Your task to perform on an android device: check android version Image 0: 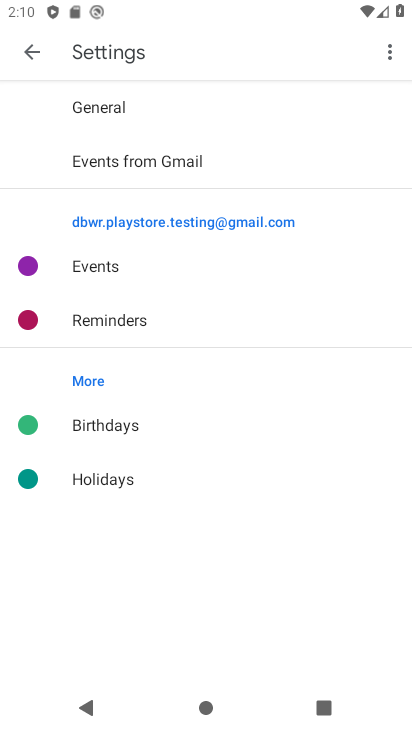
Step 0: press home button
Your task to perform on an android device: check android version Image 1: 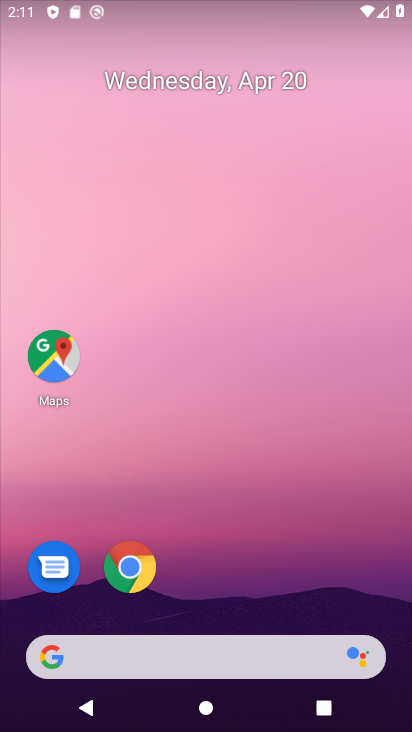
Step 1: drag from (175, 644) to (195, 309)
Your task to perform on an android device: check android version Image 2: 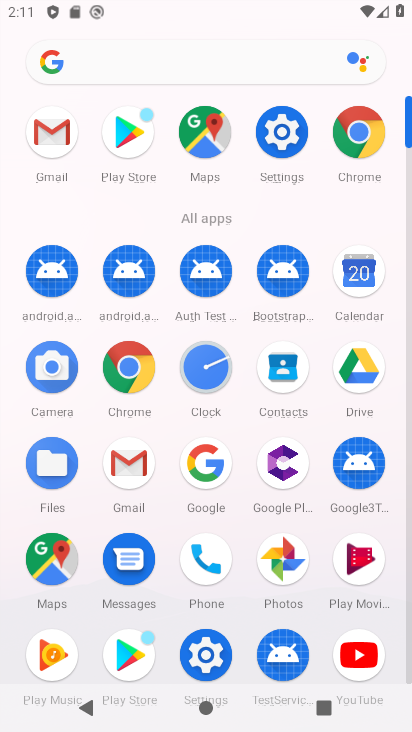
Step 2: click (194, 660)
Your task to perform on an android device: check android version Image 3: 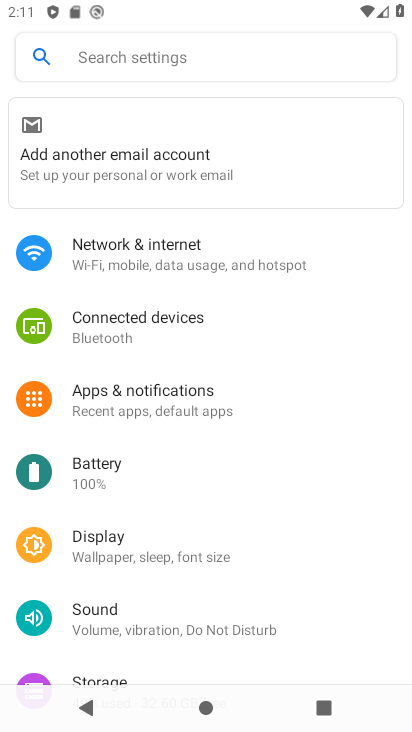
Step 3: drag from (240, 579) to (235, 139)
Your task to perform on an android device: check android version Image 4: 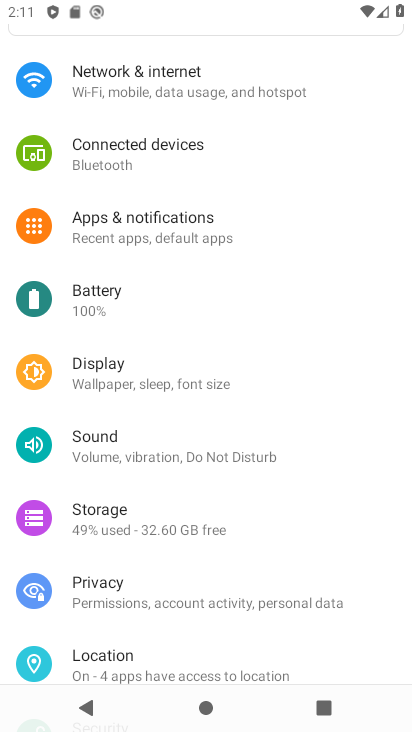
Step 4: drag from (179, 591) to (221, 265)
Your task to perform on an android device: check android version Image 5: 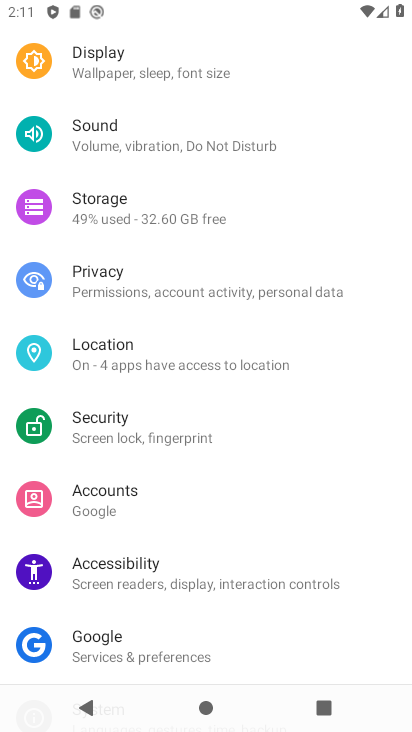
Step 5: drag from (158, 583) to (172, 190)
Your task to perform on an android device: check android version Image 6: 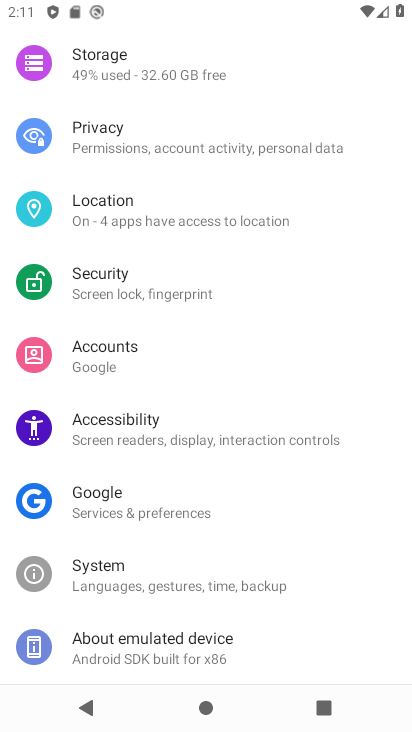
Step 6: click (135, 639)
Your task to perform on an android device: check android version Image 7: 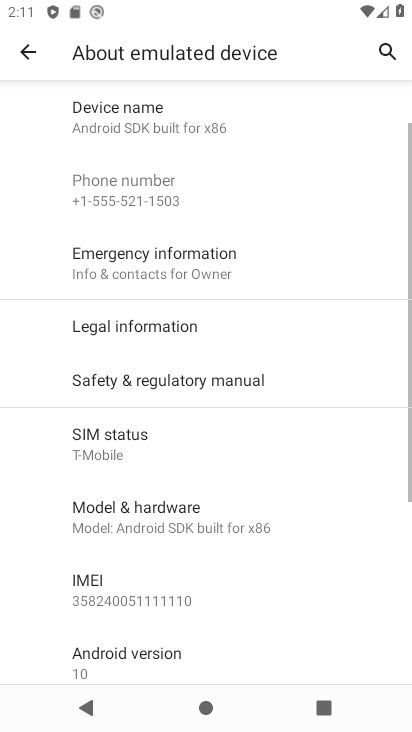
Step 7: click (146, 650)
Your task to perform on an android device: check android version Image 8: 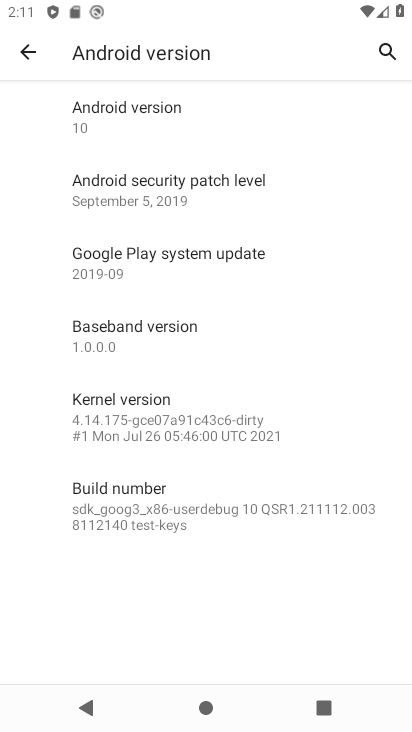
Step 8: task complete